Your task to perform on an android device: Go to Android settings Image 0: 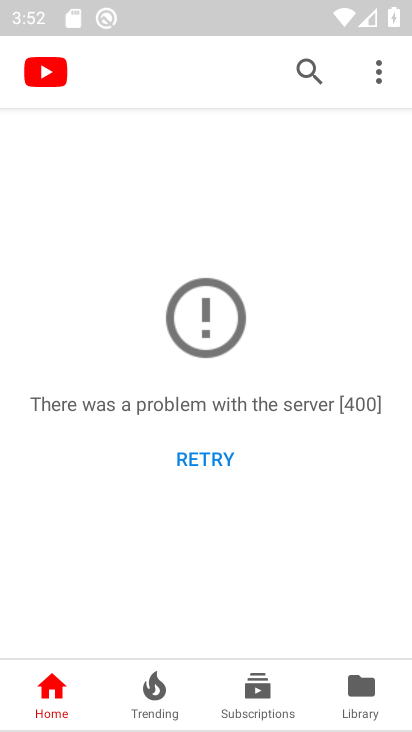
Step 0: press back button
Your task to perform on an android device: Go to Android settings Image 1: 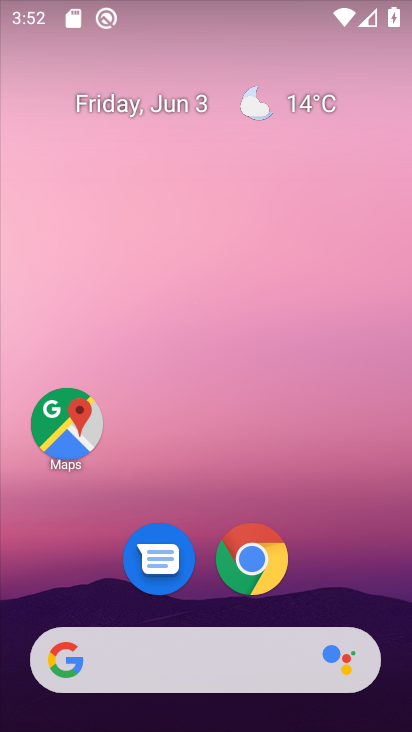
Step 1: press home button
Your task to perform on an android device: Go to Android settings Image 2: 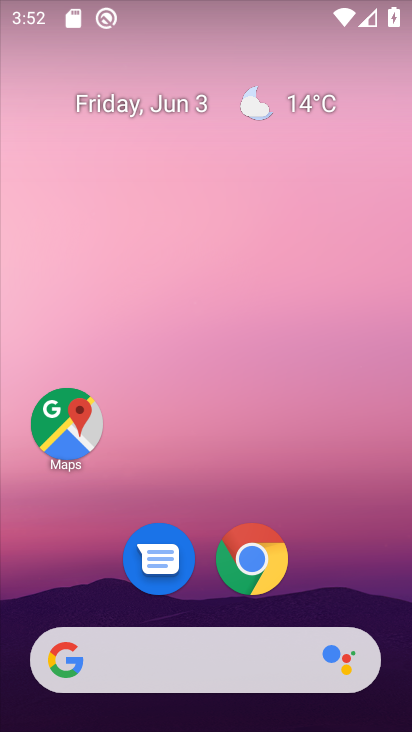
Step 2: drag from (258, 682) to (186, 164)
Your task to perform on an android device: Go to Android settings Image 3: 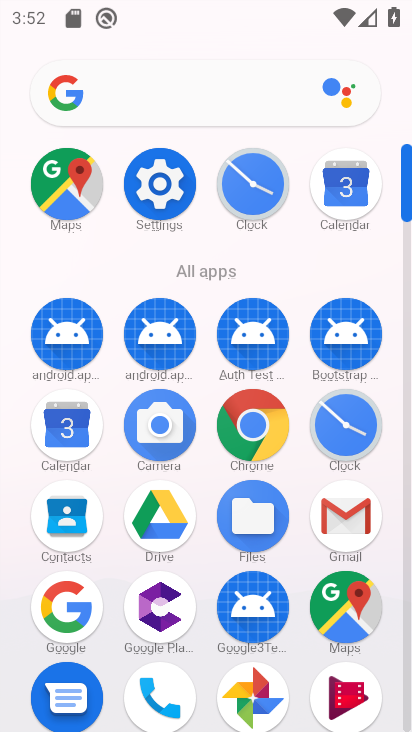
Step 3: click (169, 182)
Your task to perform on an android device: Go to Android settings Image 4: 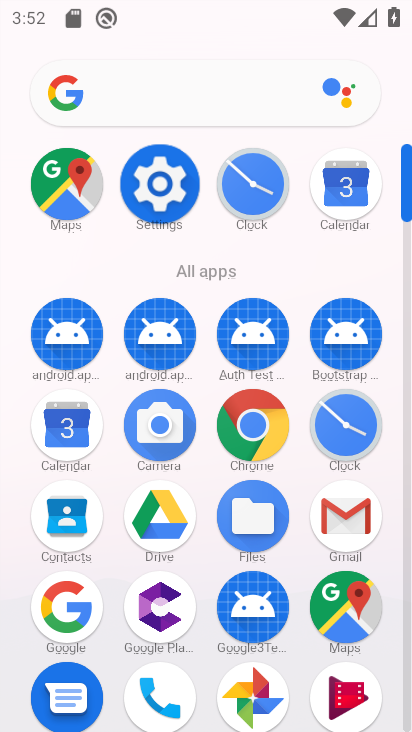
Step 4: click (168, 182)
Your task to perform on an android device: Go to Android settings Image 5: 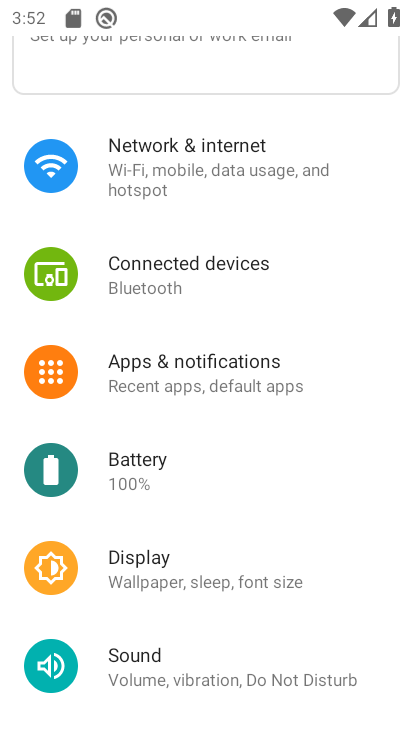
Step 5: drag from (208, 549) to (181, 205)
Your task to perform on an android device: Go to Android settings Image 6: 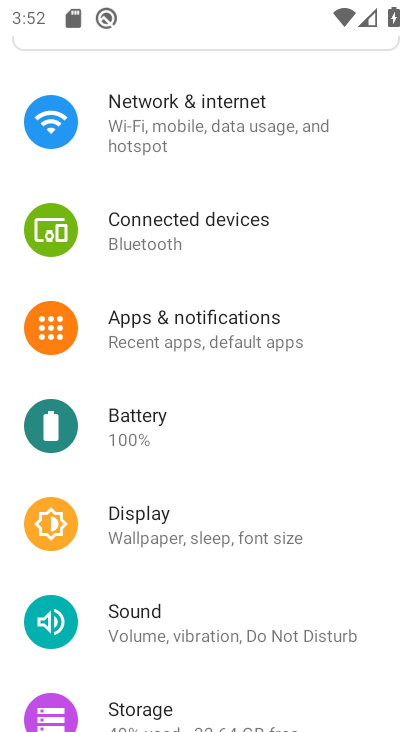
Step 6: drag from (247, 510) to (216, 217)
Your task to perform on an android device: Go to Android settings Image 7: 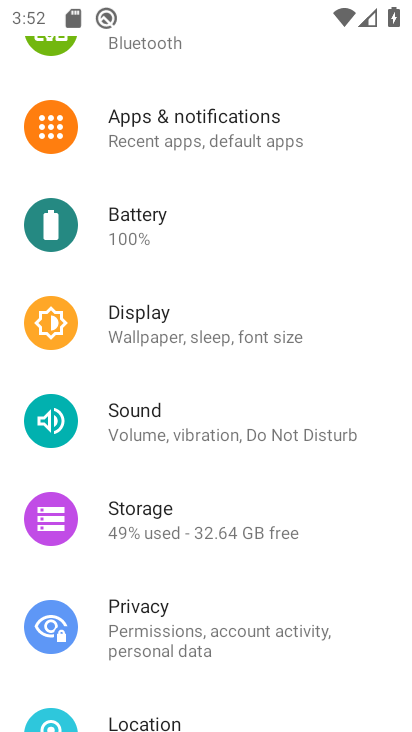
Step 7: drag from (225, 503) to (231, 202)
Your task to perform on an android device: Go to Android settings Image 8: 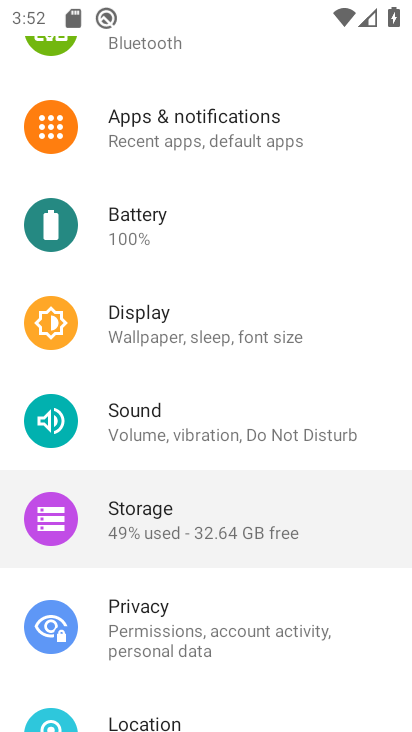
Step 8: drag from (245, 471) to (209, 189)
Your task to perform on an android device: Go to Android settings Image 9: 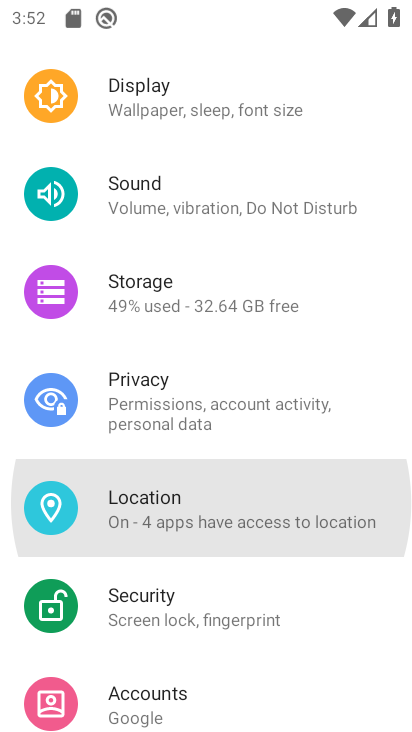
Step 9: drag from (185, 518) to (154, 174)
Your task to perform on an android device: Go to Android settings Image 10: 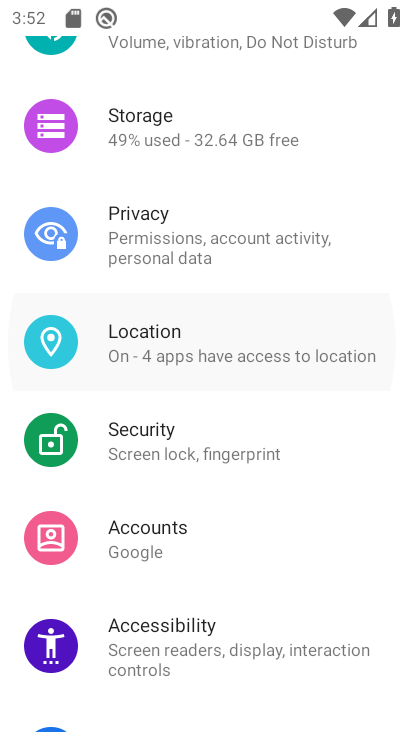
Step 10: drag from (208, 436) to (175, 143)
Your task to perform on an android device: Go to Android settings Image 11: 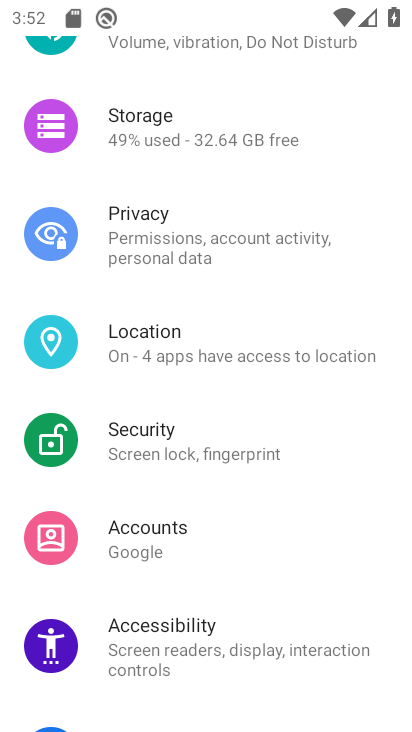
Step 11: drag from (158, 313) to (158, 167)
Your task to perform on an android device: Go to Android settings Image 12: 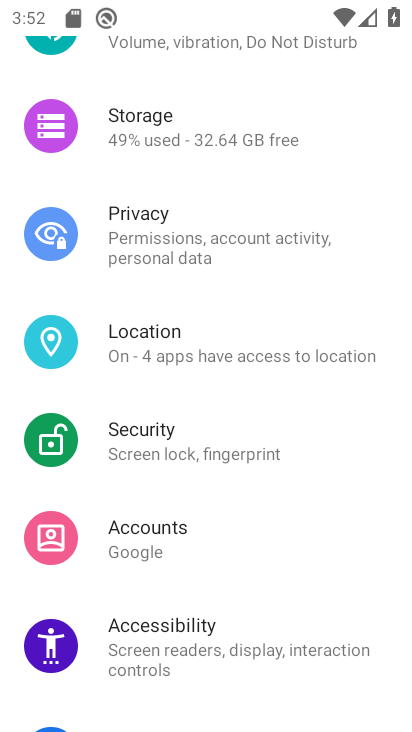
Step 12: drag from (223, 454) to (205, 153)
Your task to perform on an android device: Go to Android settings Image 13: 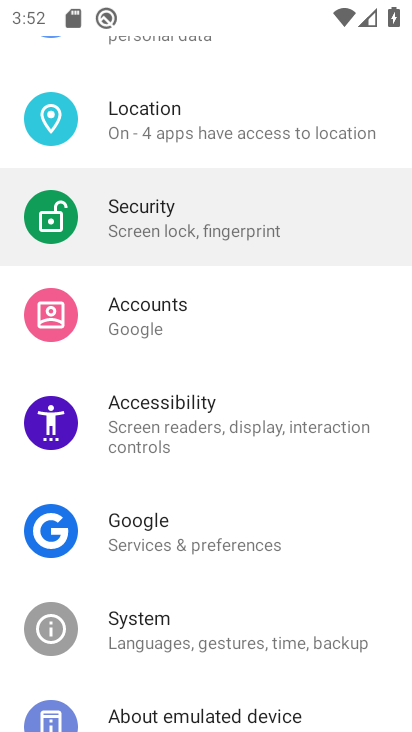
Step 13: drag from (207, 498) to (162, 173)
Your task to perform on an android device: Go to Android settings Image 14: 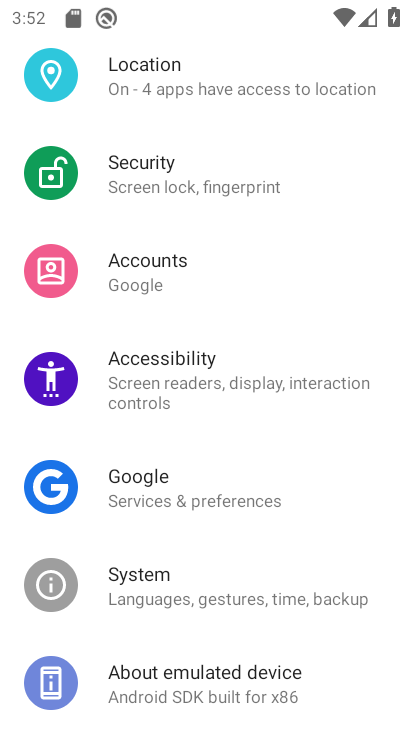
Step 14: drag from (163, 445) to (168, 139)
Your task to perform on an android device: Go to Android settings Image 15: 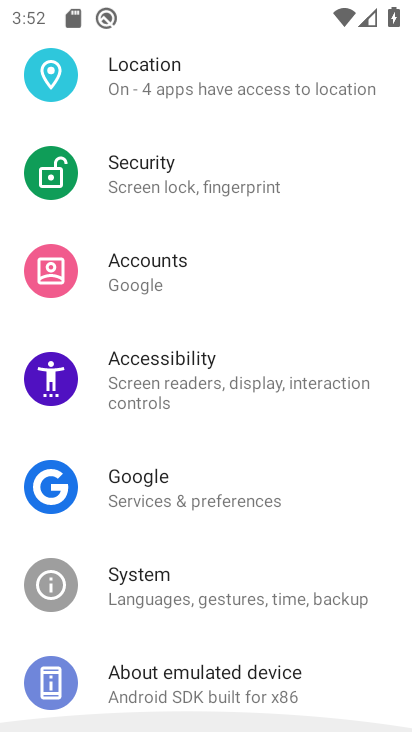
Step 15: drag from (188, 405) to (202, 139)
Your task to perform on an android device: Go to Android settings Image 16: 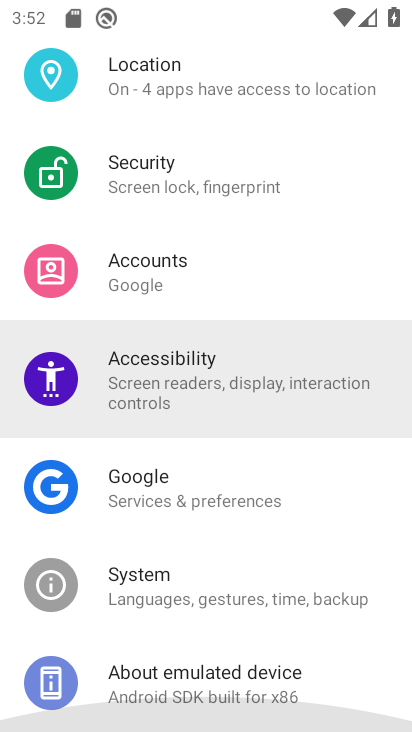
Step 16: drag from (234, 457) to (193, 154)
Your task to perform on an android device: Go to Android settings Image 17: 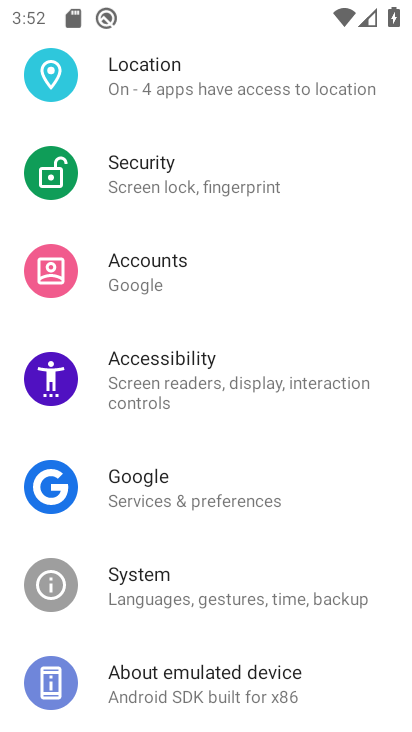
Step 17: click (162, 687)
Your task to perform on an android device: Go to Android settings Image 18: 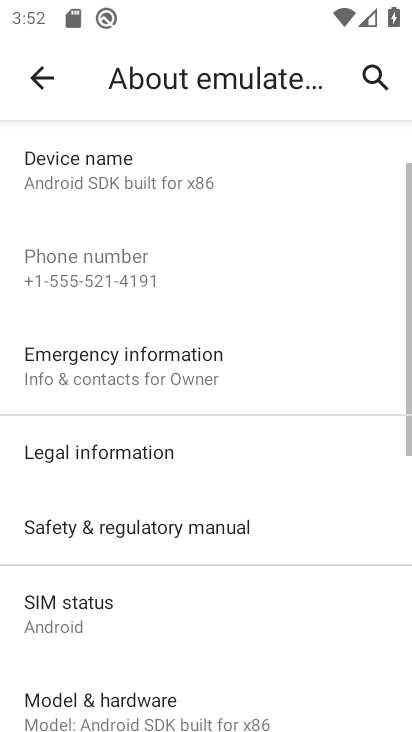
Step 18: click (183, 676)
Your task to perform on an android device: Go to Android settings Image 19: 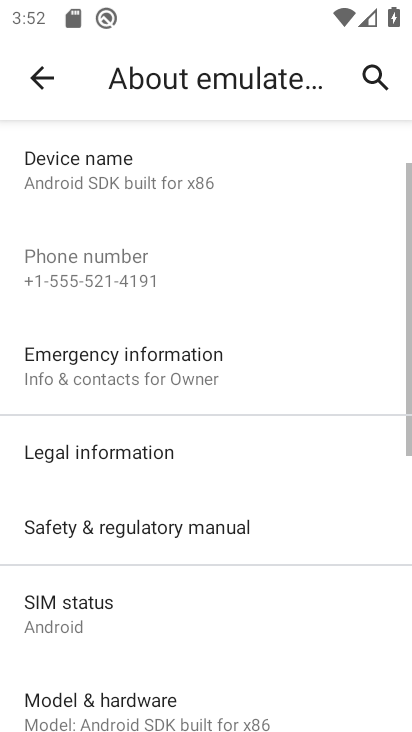
Step 19: click (183, 676)
Your task to perform on an android device: Go to Android settings Image 20: 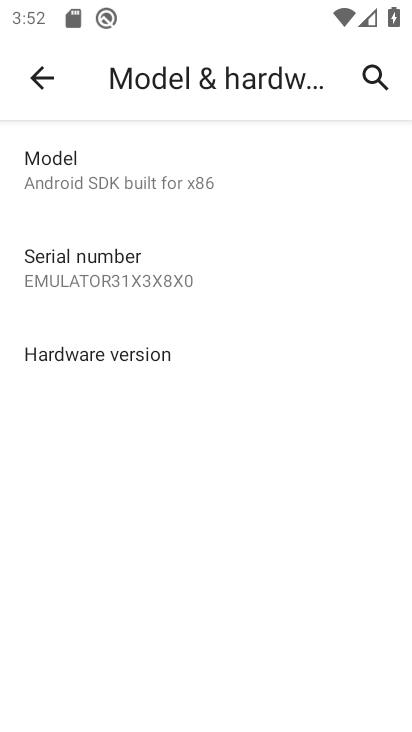
Step 20: click (36, 79)
Your task to perform on an android device: Go to Android settings Image 21: 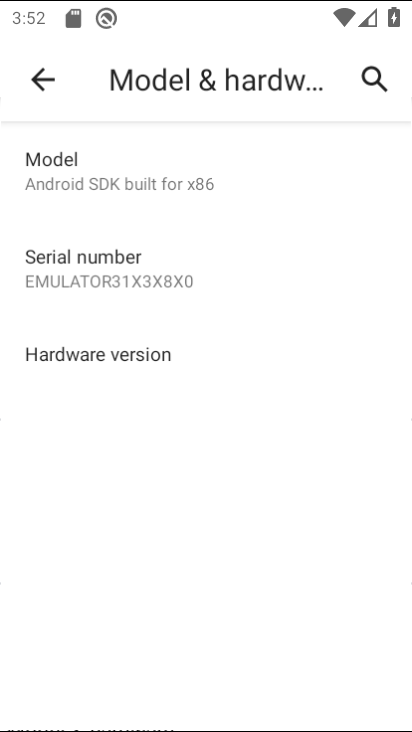
Step 21: task complete